Your task to perform on an android device: toggle location history Image 0: 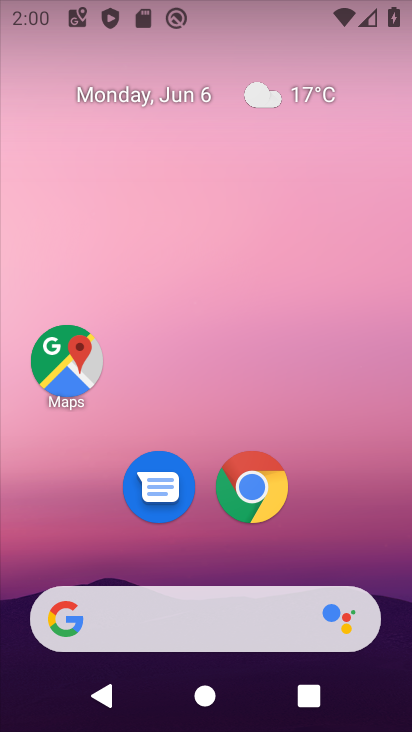
Step 0: drag from (122, 532) to (194, 176)
Your task to perform on an android device: toggle location history Image 1: 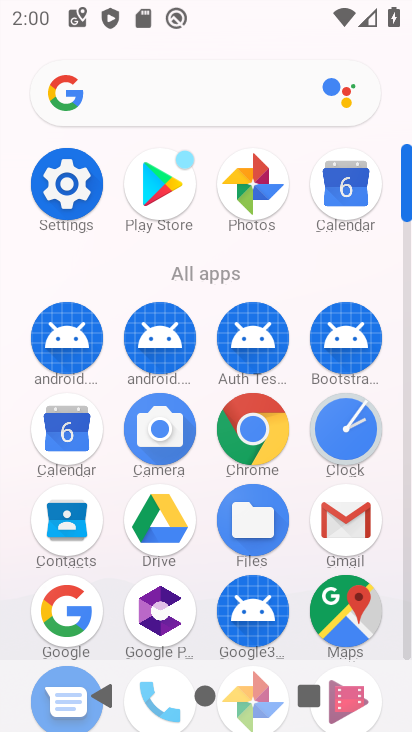
Step 1: drag from (136, 616) to (211, 374)
Your task to perform on an android device: toggle location history Image 2: 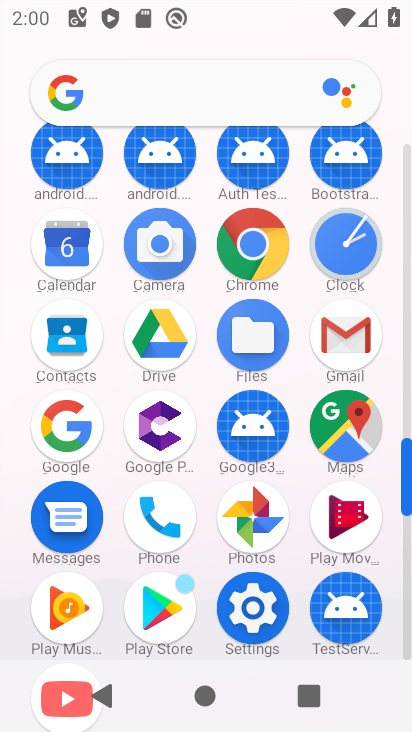
Step 2: click (269, 620)
Your task to perform on an android device: toggle location history Image 3: 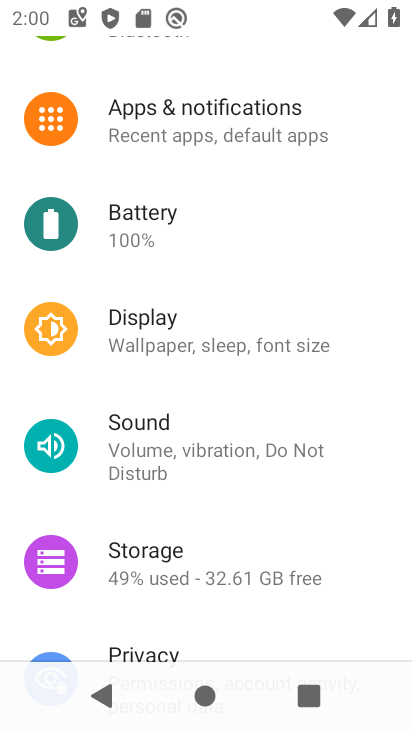
Step 3: drag from (129, 624) to (231, 232)
Your task to perform on an android device: toggle location history Image 4: 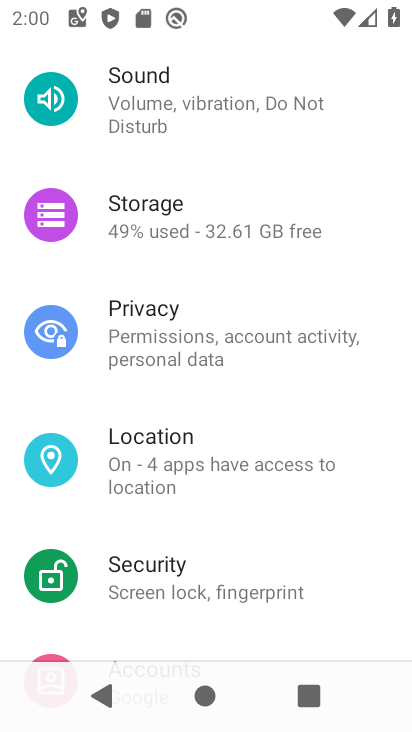
Step 4: click (178, 473)
Your task to perform on an android device: toggle location history Image 5: 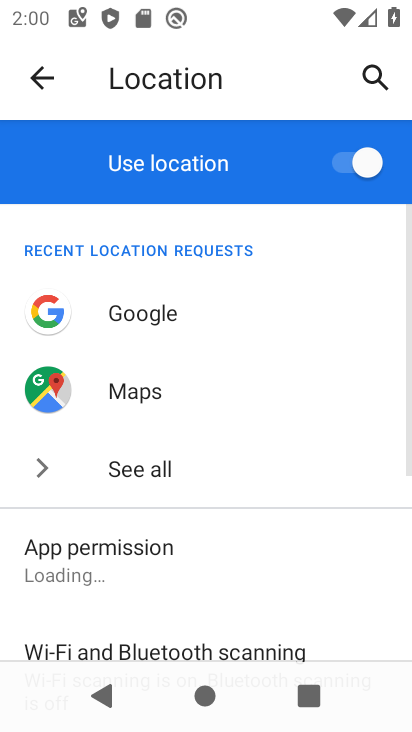
Step 5: drag from (168, 557) to (273, 203)
Your task to perform on an android device: toggle location history Image 6: 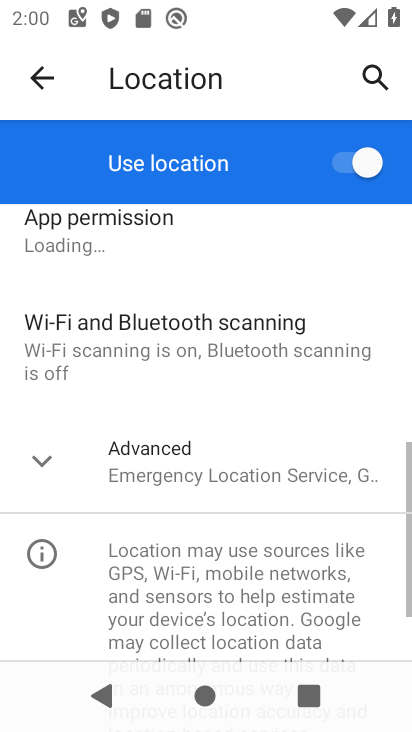
Step 6: click (242, 449)
Your task to perform on an android device: toggle location history Image 7: 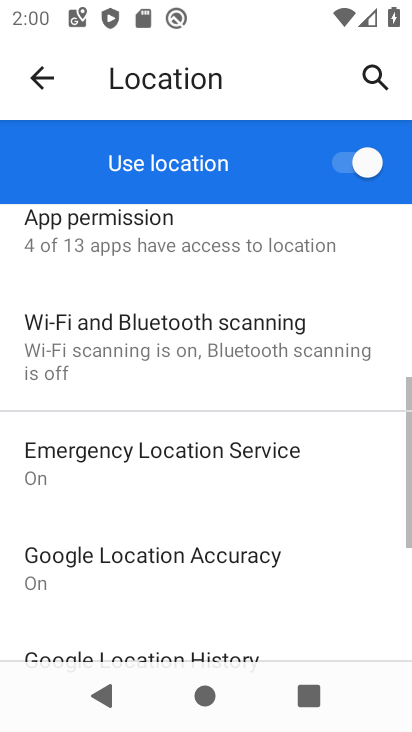
Step 7: drag from (236, 614) to (284, 387)
Your task to perform on an android device: toggle location history Image 8: 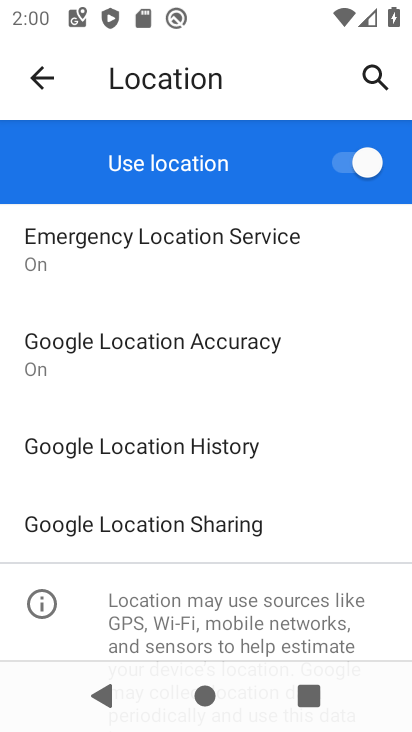
Step 8: click (187, 462)
Your task to perform on an android device: toggle location history Image 9: 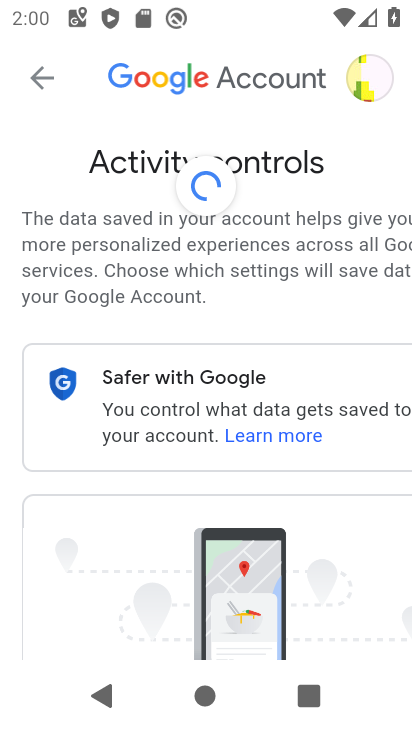
Step 9: drag from (244, 190) to (315, 97)
Your task to perform on an android device: toggle location history Image 10: 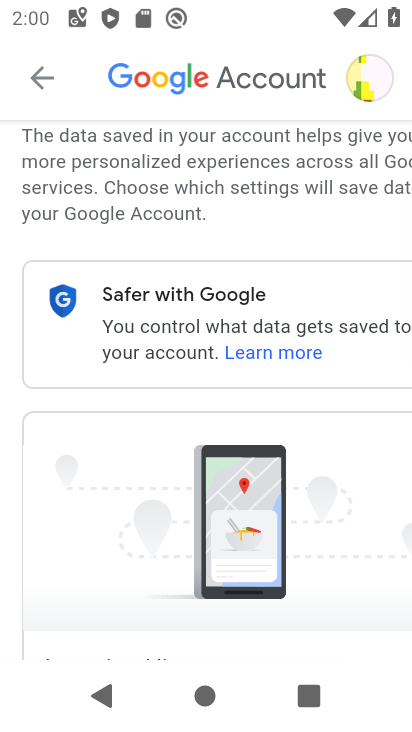
Step 10: drag from (255, 533) to (405, 95)
Your task to perform on an android device: toggle location history Image 11: 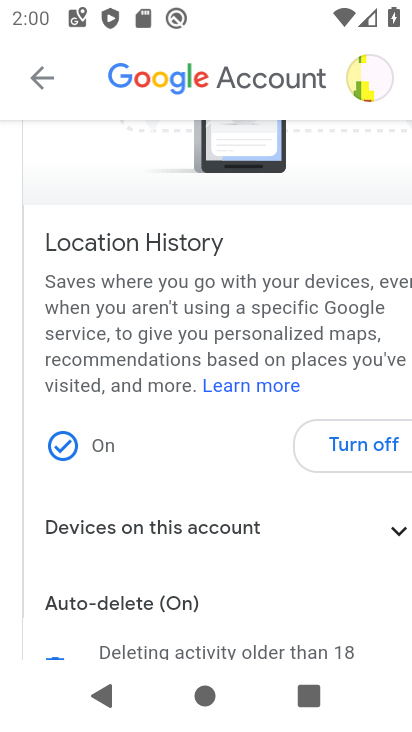
Step 11: click (368, 448)
Your task to perform on an android device: toggle location history Image 12: 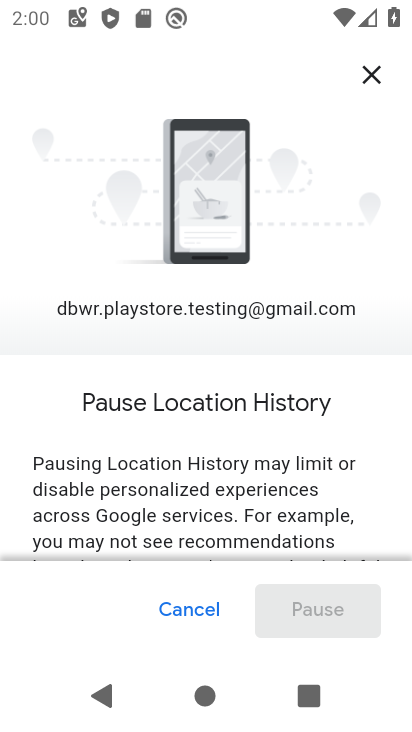
Step 12: drag from (199, 490) to (307, 103)
Your task to perform on an android device: toggle location history Image 13: 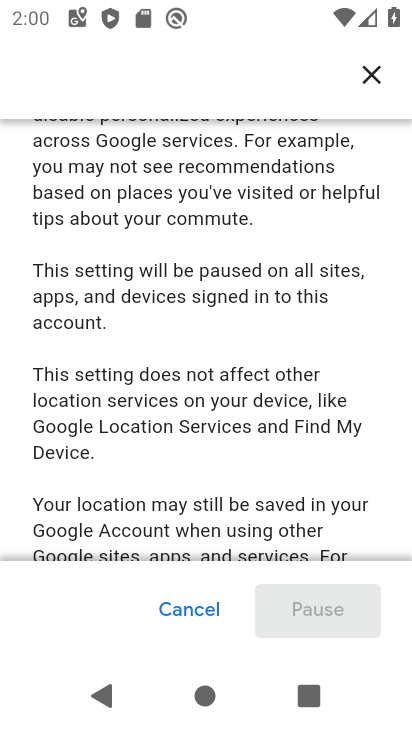
Step 13: drag from (198, 498) to (332, 120)
Your task to perform on an android device: toggle location history Image 14: 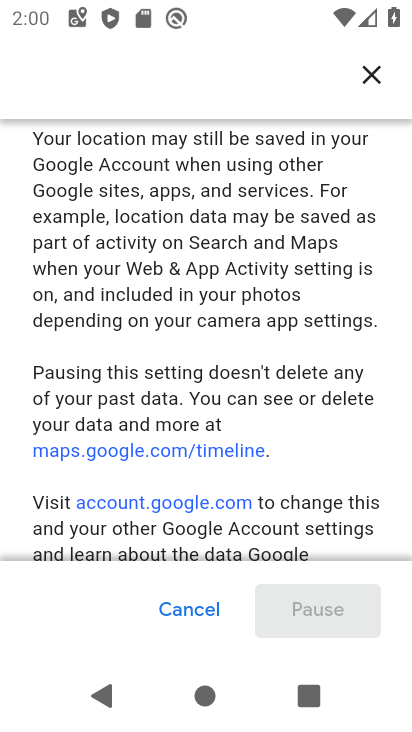
Step 14: drag from (256, 495) to (359, 175)
Your task to perform on an android device: toggle location history Image 15: 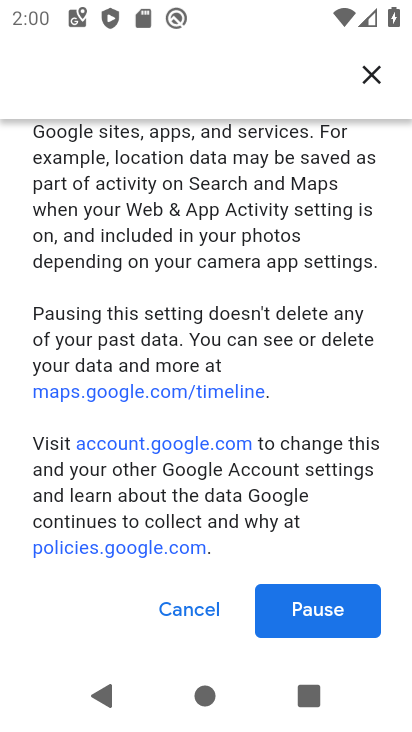
Step 15: click (342, 632)
Your task to perform on an android device: toggle location history Image 16: 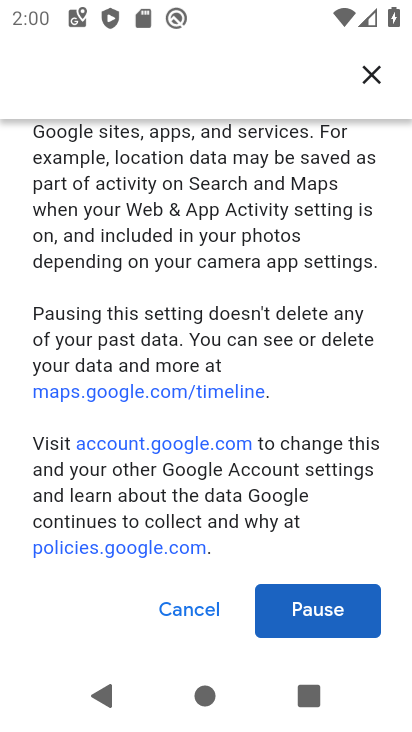
Step 16: click (342, 631)
Your task to perform on an android device: toggle location history Image 17: 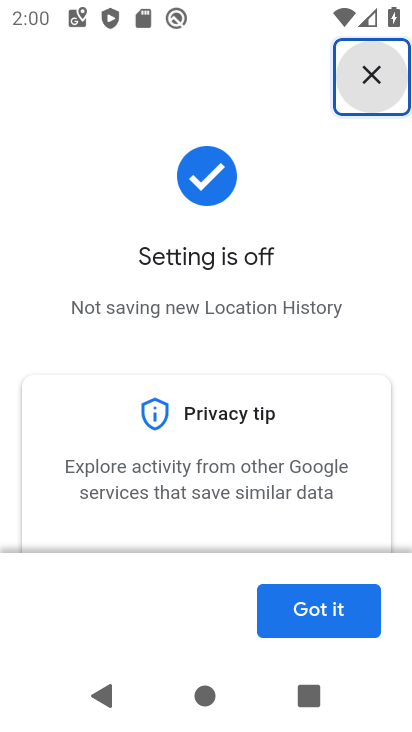
Step 17: click (385, 615)
Your task to perform on an android device: toggle location history Image 18: 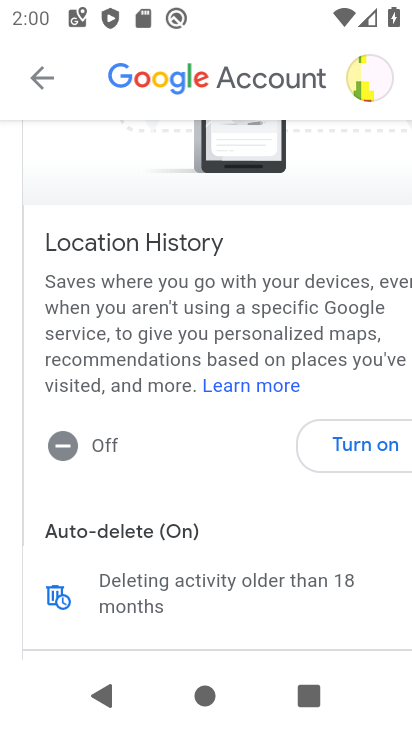
Step 18: click (367, 455)
Your task to perform on an android device: toggle location history Image 19: 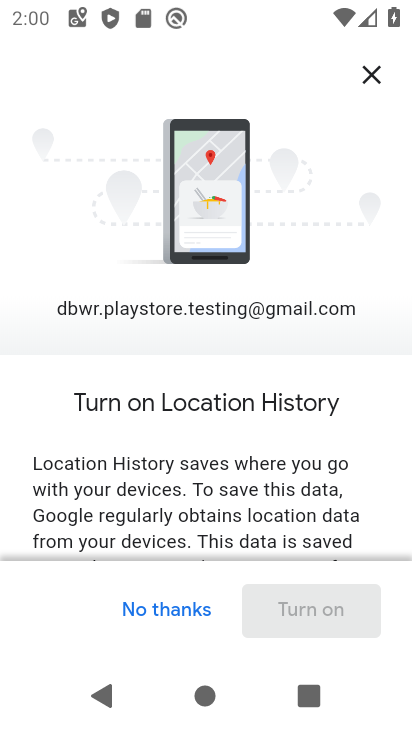
Step 19: drag from (297, 515) to (407, 230)
Your task to perform on an android device: toggle location history Image 20: 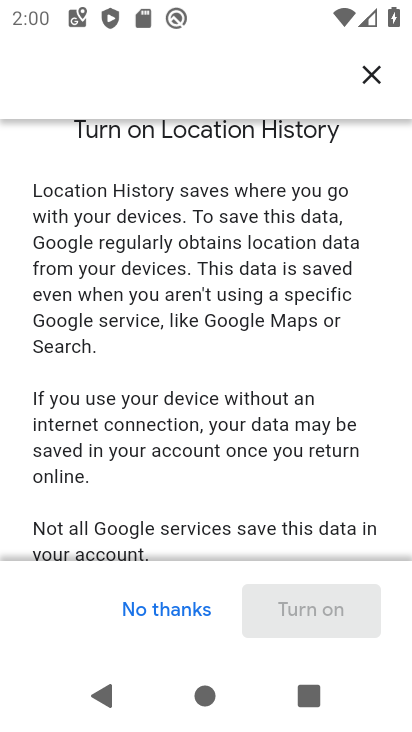
Step 20: drag from (240, 493) to (404, 347)
Your task to perform on an android device: toggle location history Image 21: 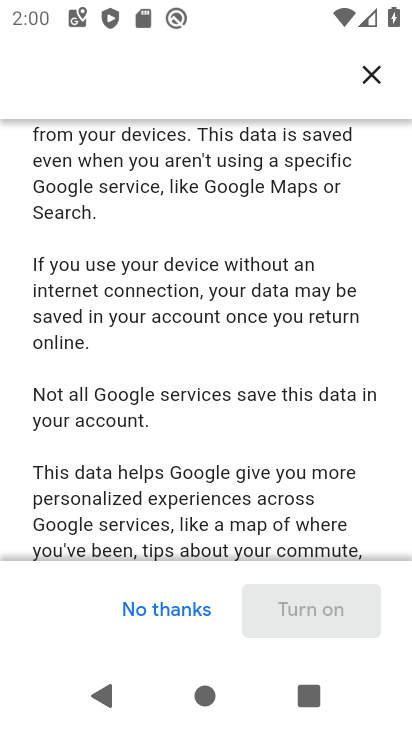
Step 21: drag from (258, 466) to (391, 126)
Your task to perform on an android device: toggle location history Image 22: 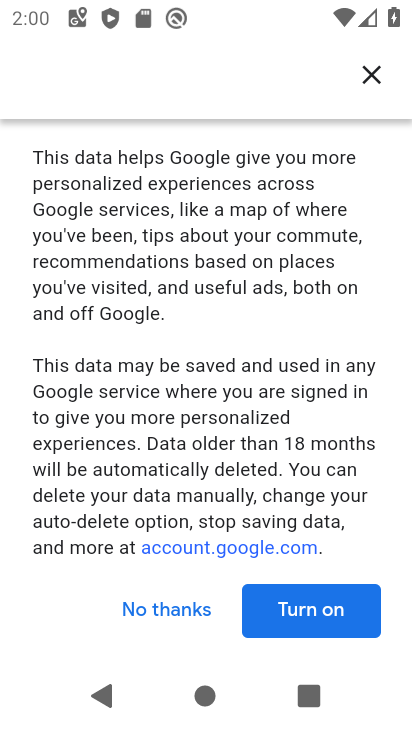
Step 22: click (331, 630)
Your task to perform on an android device: toggle location history Image 23: 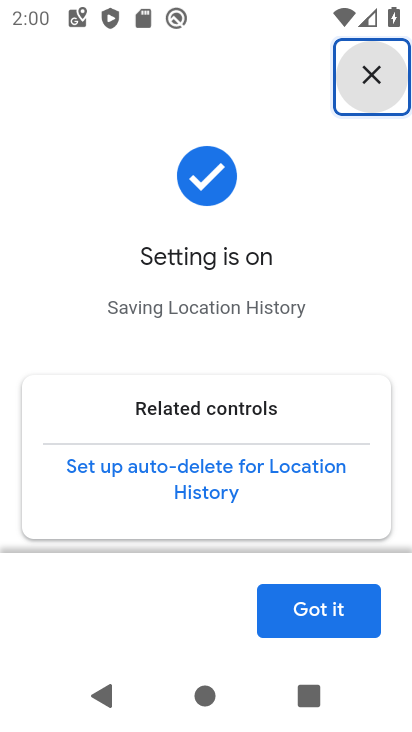
Step 23: click (336, 623)
Your task to perform on an android device: toggle location history Image 24: 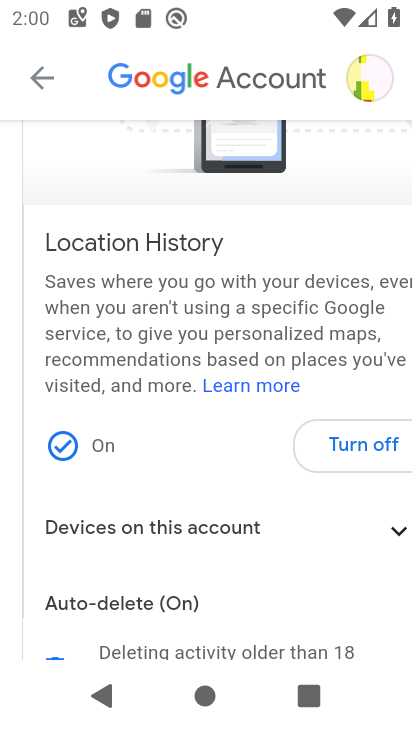
Step 24: task complete